Your task to perform on an android device: Toggle the flashlight Image 0: 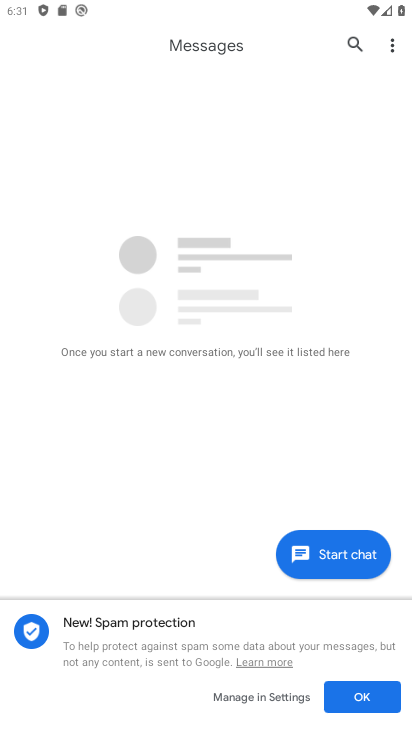
Step 0: press home button
Your task to perform on an android device: Toggle the flashlight Image 1: 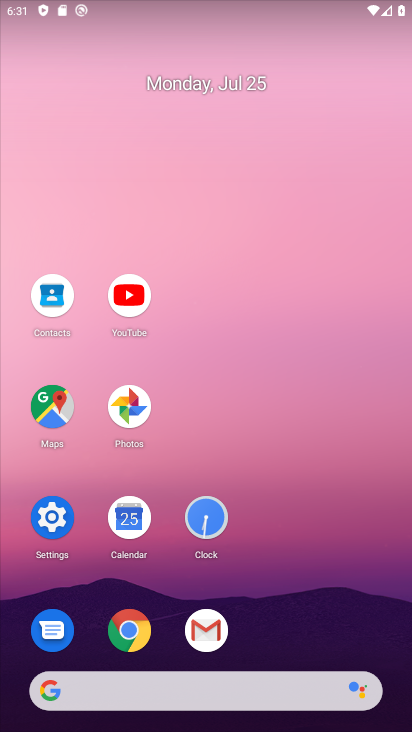
Step 1: click (48, 517)
Your task to perform on an android device: Toggle the flashlight Image 2: 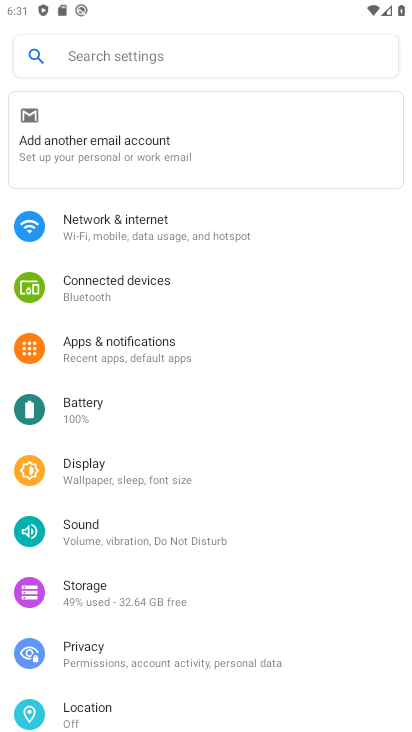
Step 2: click (86, 461)
Your task to perform on an android device: Toggle the flashlight Image 3: 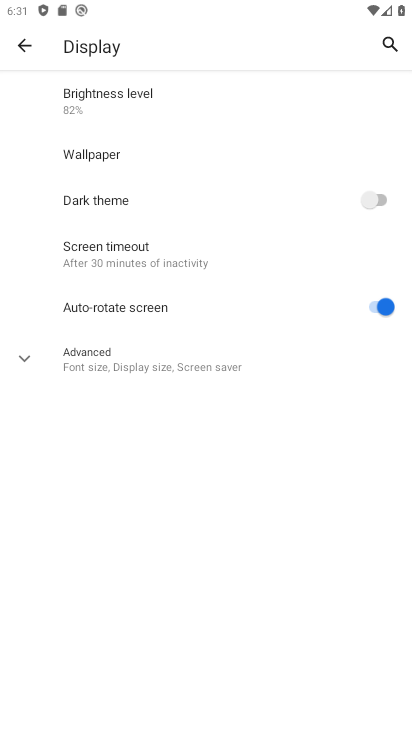
Step 3: task complete